Your task to perform on an android device: uninstall "Microsoft Excel" Image 0: 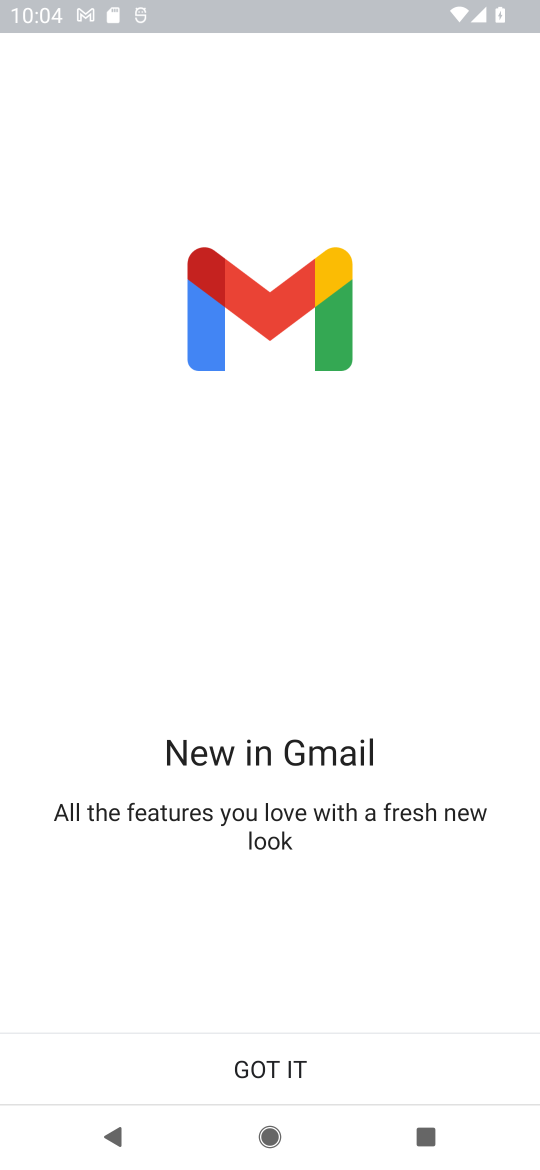
Step 0: press home button
Your task to perform on an android device: uninstall "Microsoft Excel" Image 1: 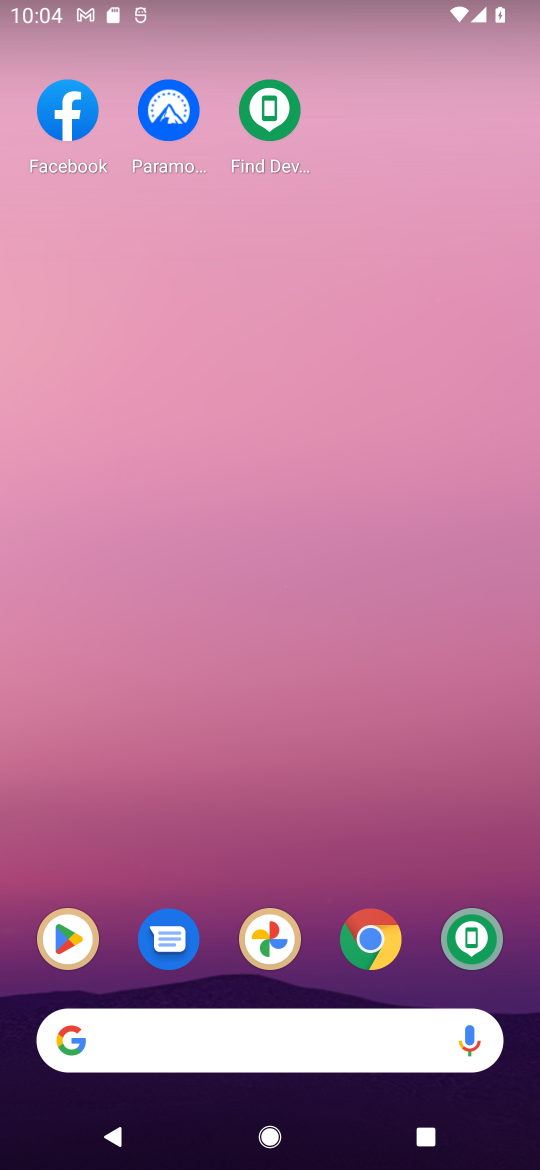
Step 1: click (70, 939)
Your task to perform on an android device: uninstall "Microsoft Excel" Image 2: 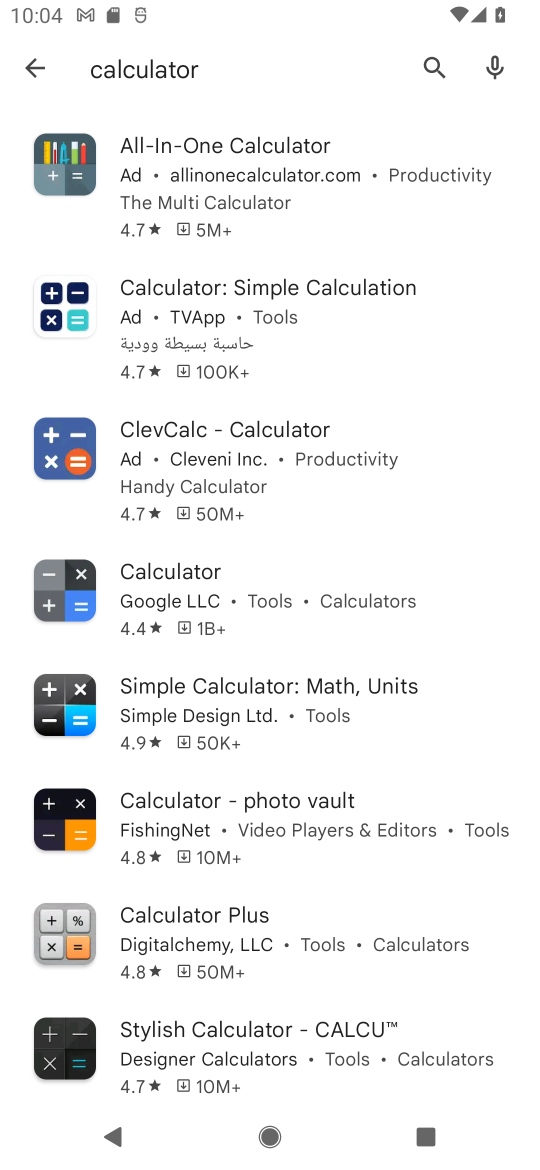
Step 2: click (453, 63)
Your task to perform on an android device: uninstall "Microsoft Excel" Image 3: 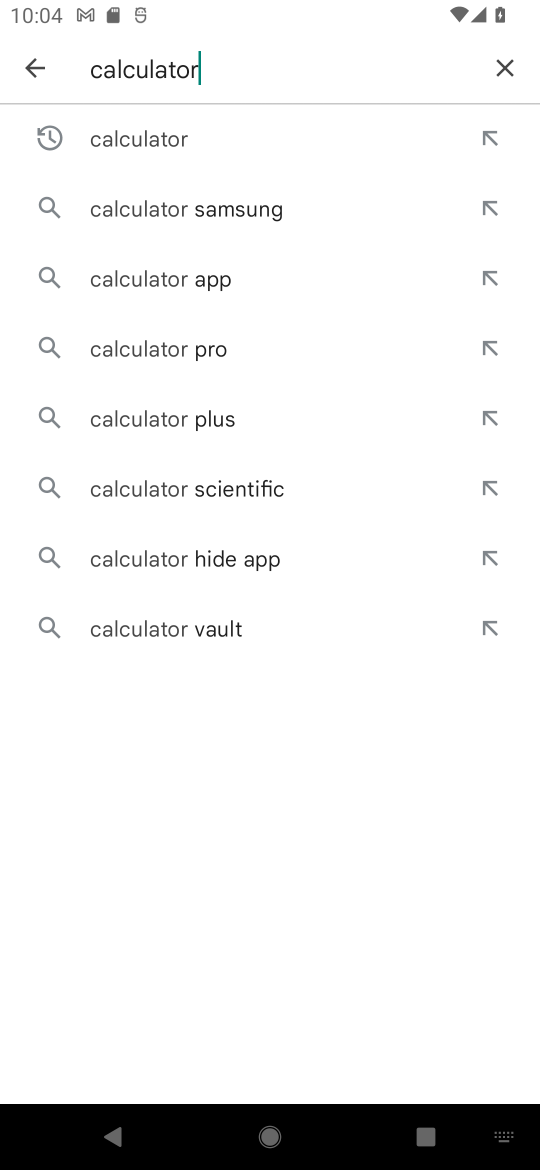
Step 3: click (504, 57)
Your task to perform on an android device: uninstall "Microsoft Excel" Image 4: 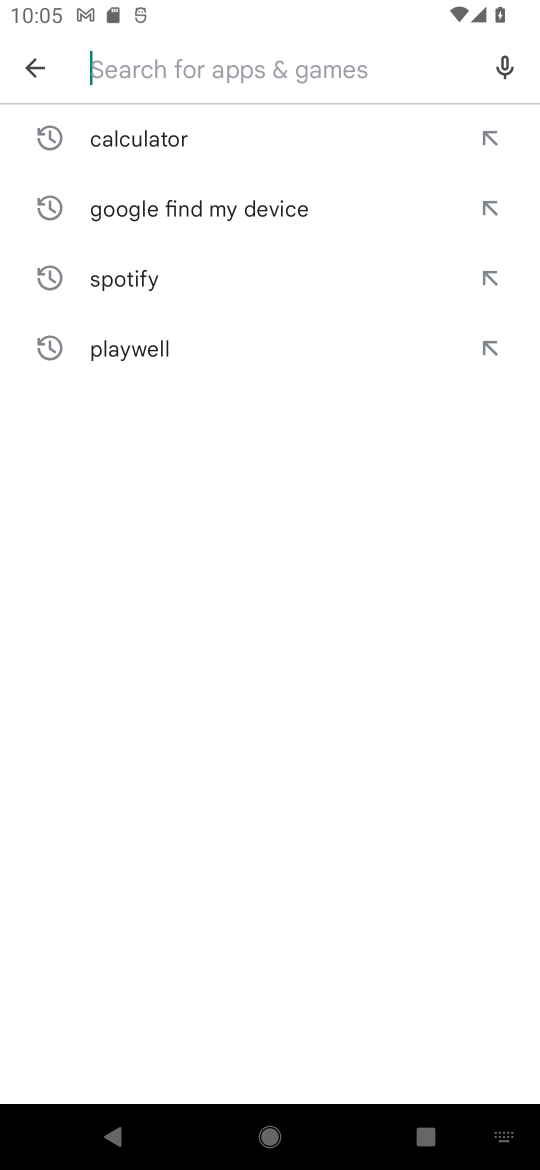
Step 4: type "microsoft excel"
Your task to perform on an android device: uninstall "Microsoft Excel" Image 5: 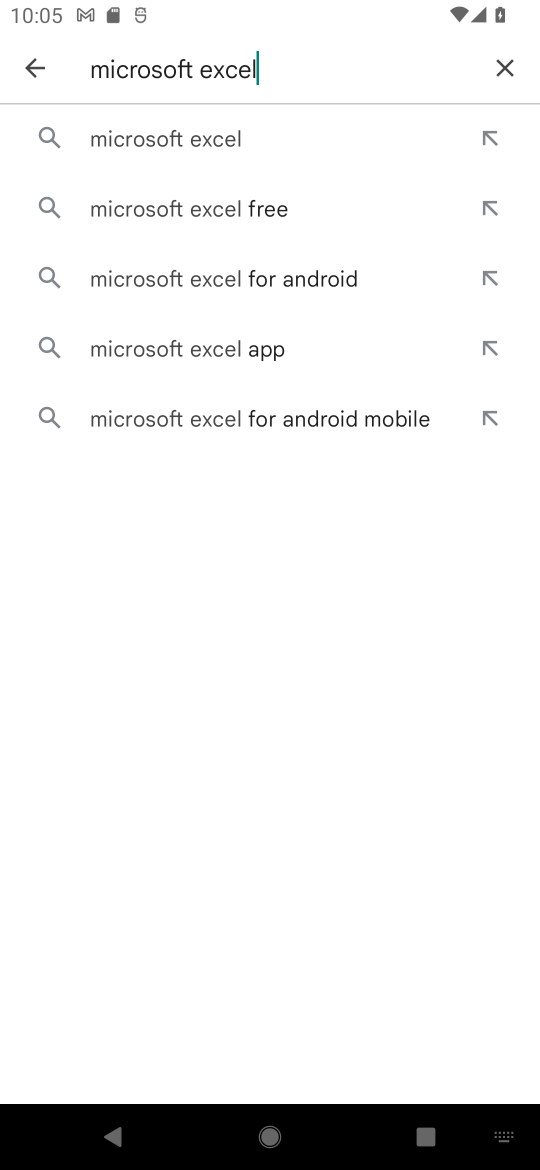
Step 5: click (146, 142)
Your task to perform on an android device: uninstall "Microsoft Excel" Image 6: 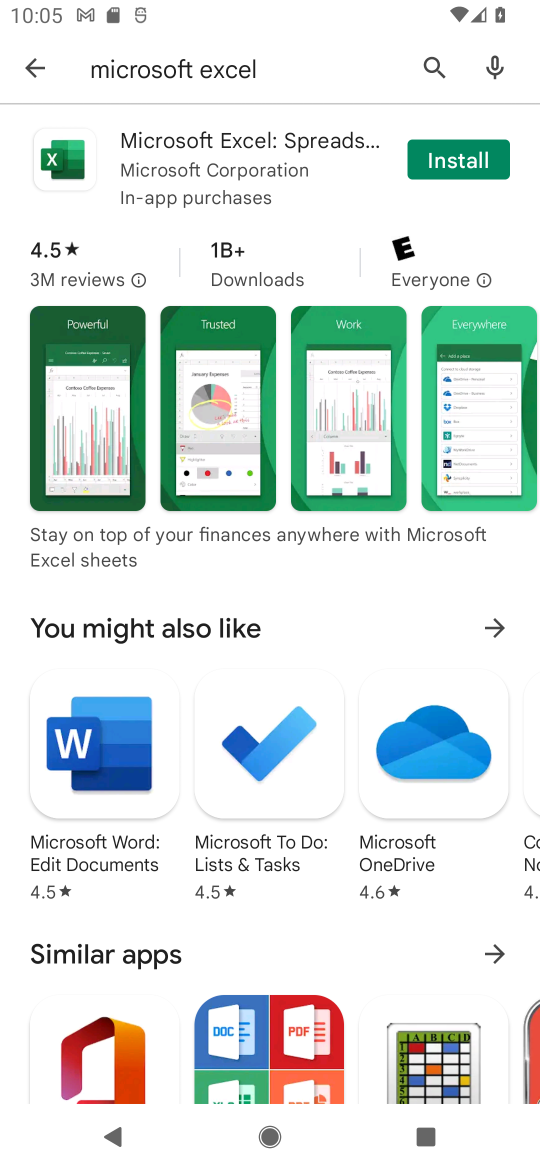
Step 6: task complete